Your task to perform on an android device: Search for sushi restaurants on Maps Image 0: 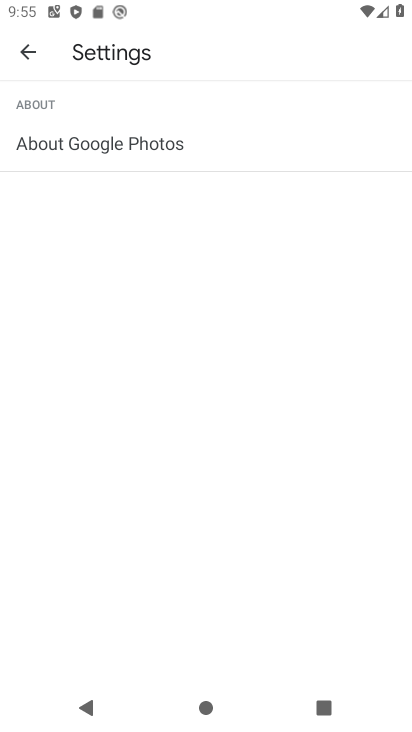
Step 0: press home button
Your task to perform on an android device: Search for sushi restaurants on Maps Image 1: 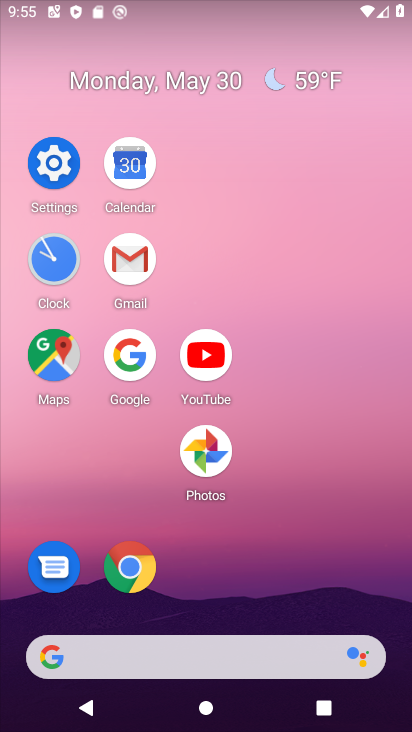
Step 1: click (50, 353)
Your task to perform on an android device: Search for sushi restaurants on Maps Image 2: 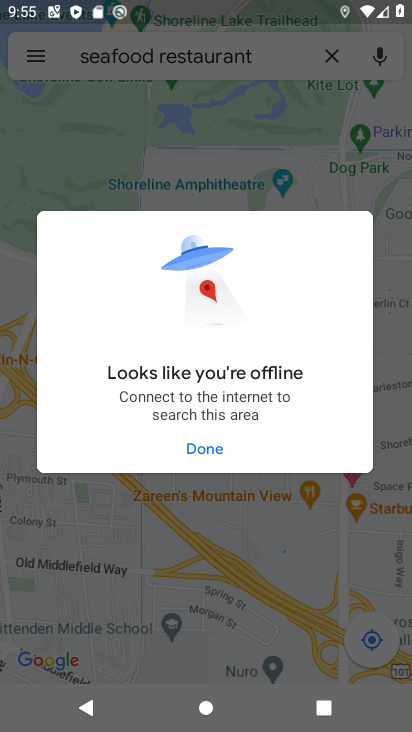
Step 2: click (197, 451)
Your task to perform on an android device: Search for sushi restaurants on Maps Image 3: 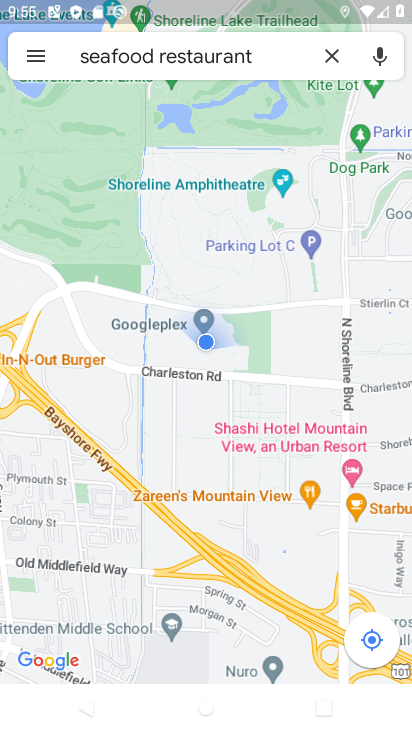
Step 3: click (332, 62)
Your task to perform on an android device: Search for sushi restaurants on Maps Image 4: 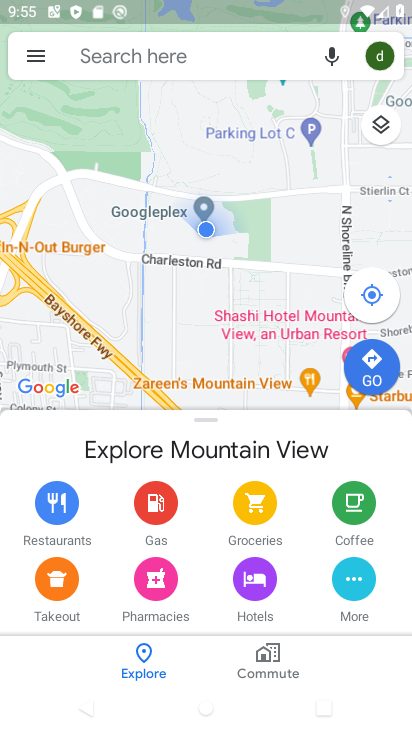
Step 4: click (213, 47)
Your task to perform on an android device: Search for sushi restaurants on Maps Image 5: 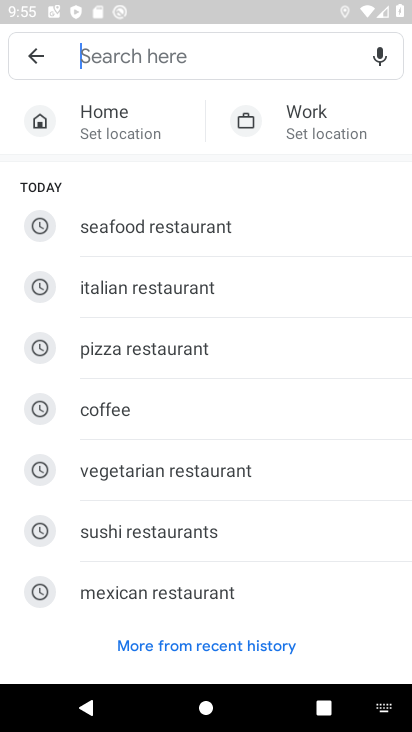
Step 5: click (206, 533)
Your task to perform on an android device: Search for sushi restaurants on Maps Image 6: 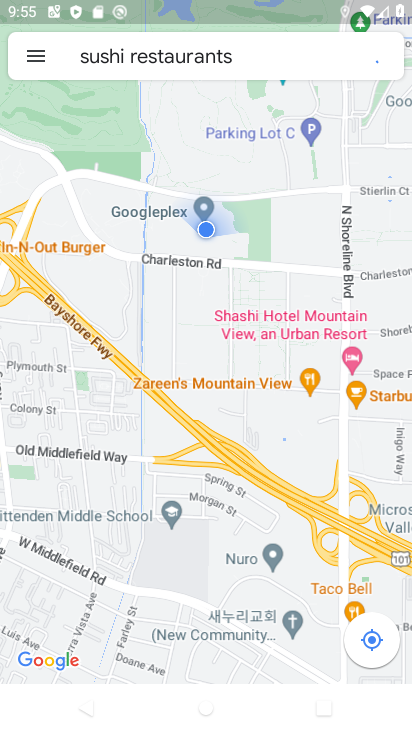
Step 6: task complete